Your task to perform on an android device: clear history in the chrome app Image 0: 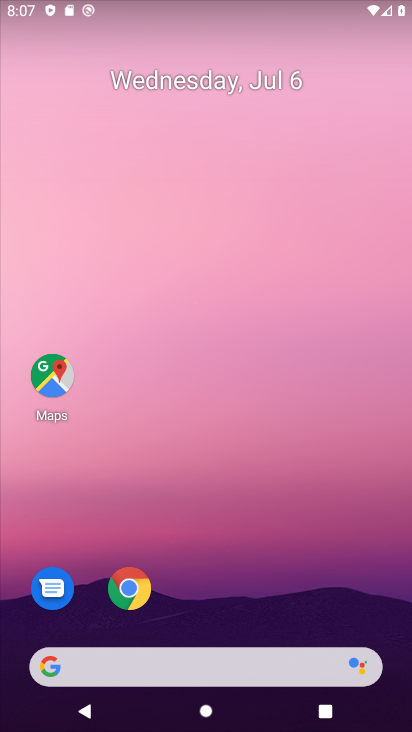
Step 0: drag from (321, 613) to (219, 110)
Your task to perform on an android device: clear history in the chrome app Image 1: 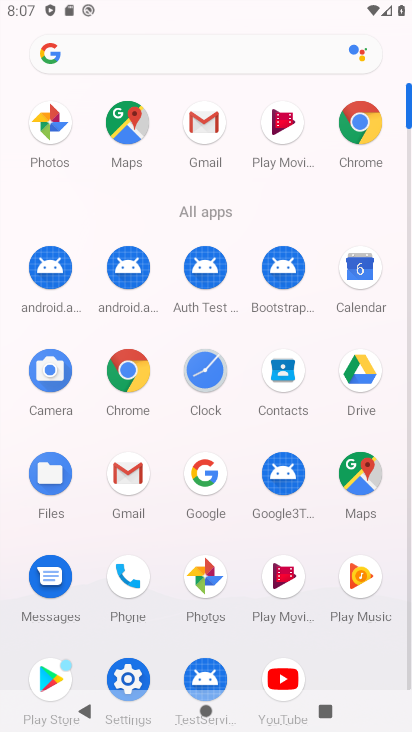
Step 1: click (361, 115)
Your task to perform on an android device: clear history in the chrome app Image 2: 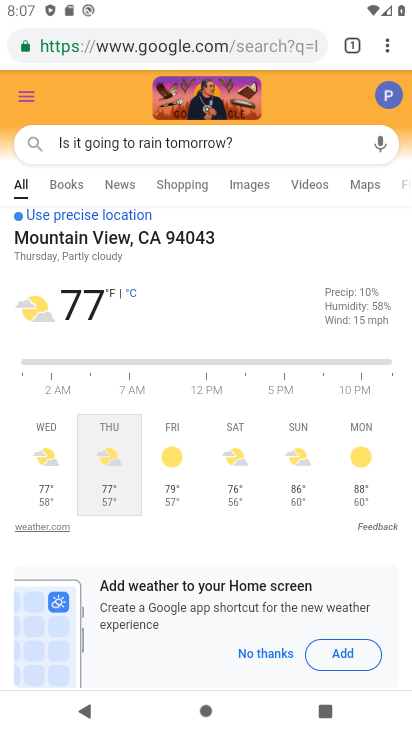
Step 2: click (384, 45)
Your task to perform on an android device: clear history in the chrome app Image 3: 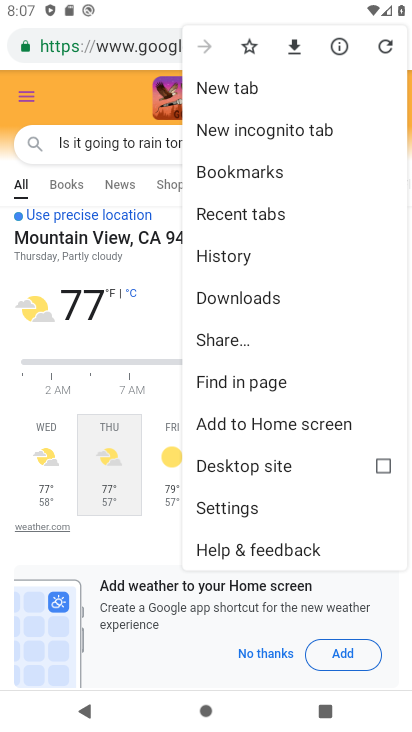
Step 3: click (257, 255)
Your task to perform on an android device: clear history in the chrome app Image 4: 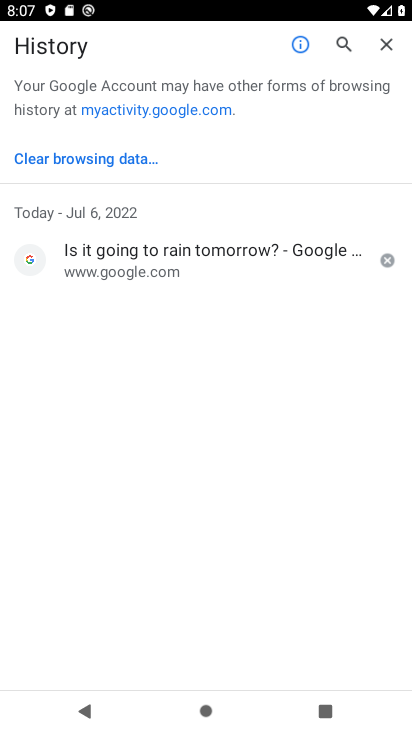
Step 4: click (111, 161)
Your task to perform on an android device: clear history in the chrome app Image 5: 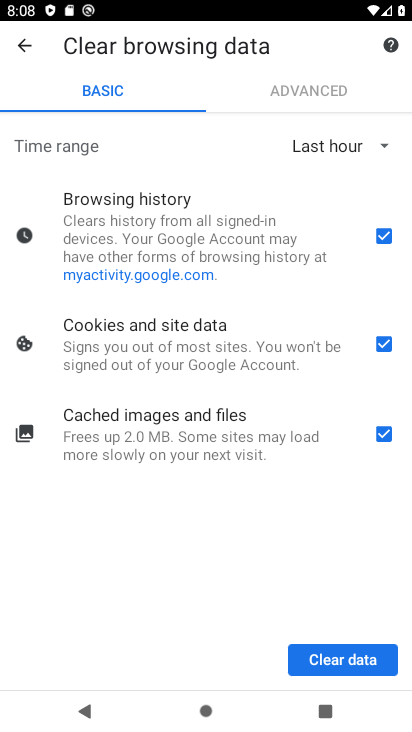
Step 5: click (383, 431)
Your task to perform on an android device: clear history in the chrome app Image 6: 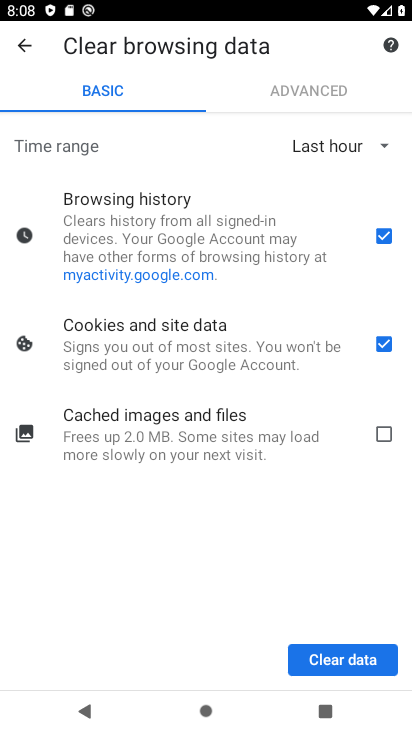
Step 6: click (384, 346)
Your task to perform on an android device: clear history in the chrome app Image 7: 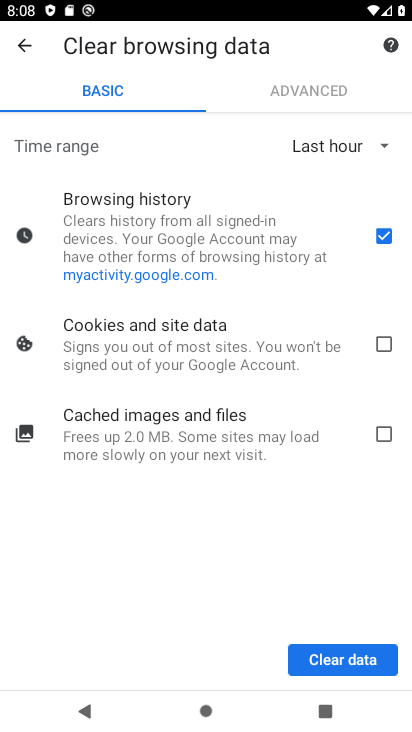
Step 7: click (369, 657)
Your task to perform on an android device: clear history in the chrome app Image 8: 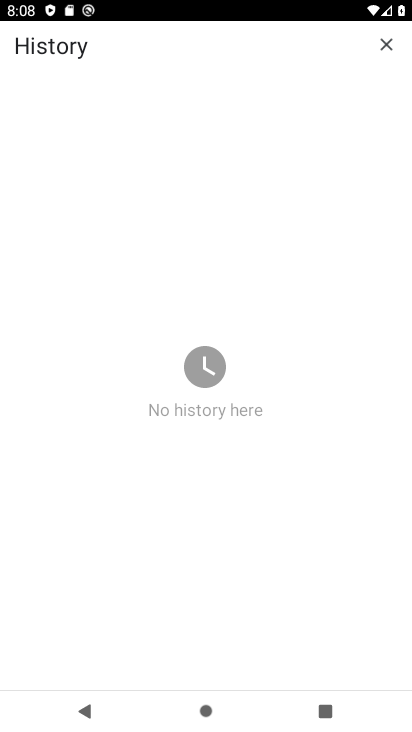
Step 8: task complete